Your task to perform on an android device: Add alienware area 51 to the cart on bestbuy.com, then select checkout. Image 0: 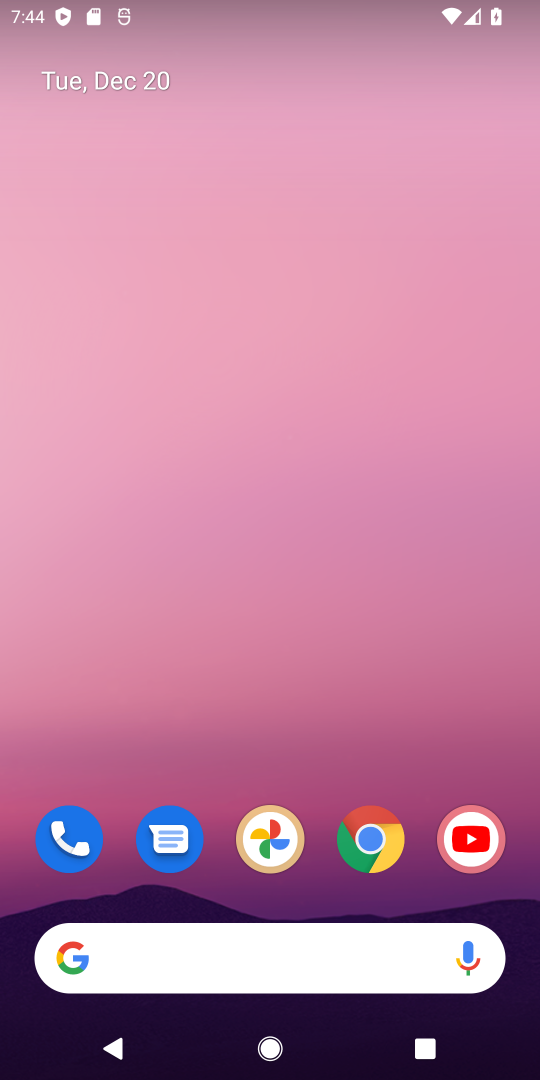
Step 0: press home button
Your task to perform on an android device: Add alienware area 51 to the cart on bestbuy.com, then select checkout. Image 1: 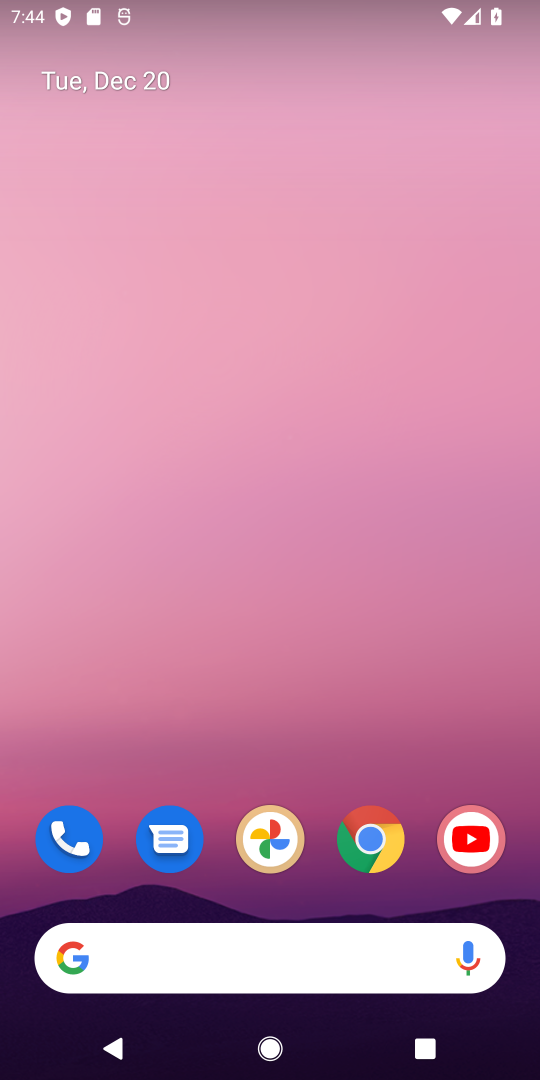
Step 1: drag from (257, 922) to (232, 1)
Your task to perform on an android device: Add alienware area 51 to the cart on bestbuy.com, then select checkout. Image 2: 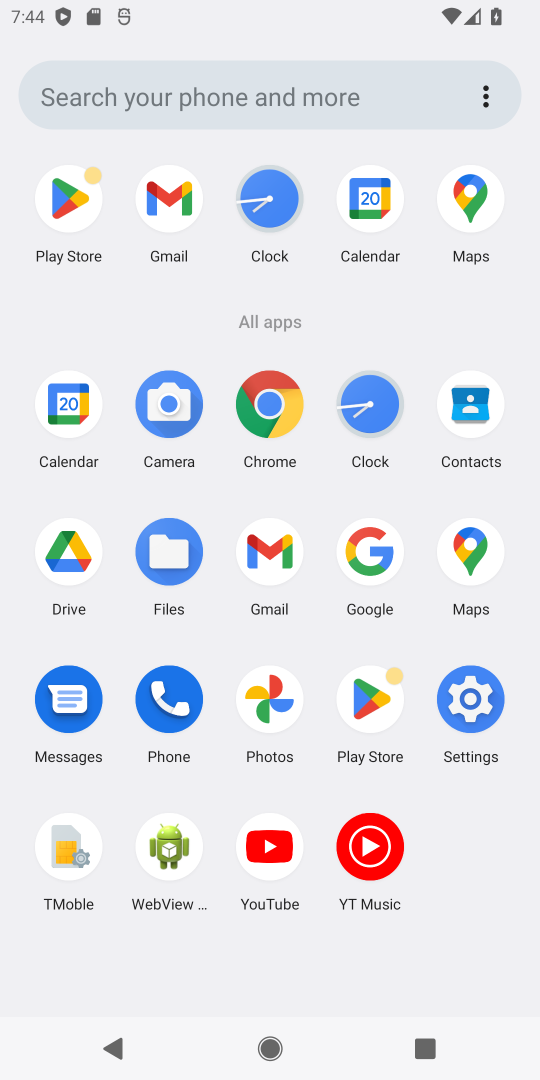
Step 2: click (361, 565)
Your task to perform on an android device: Add alienware area 51 to the cart on bestbuy.com, then select checkout. Image 3: 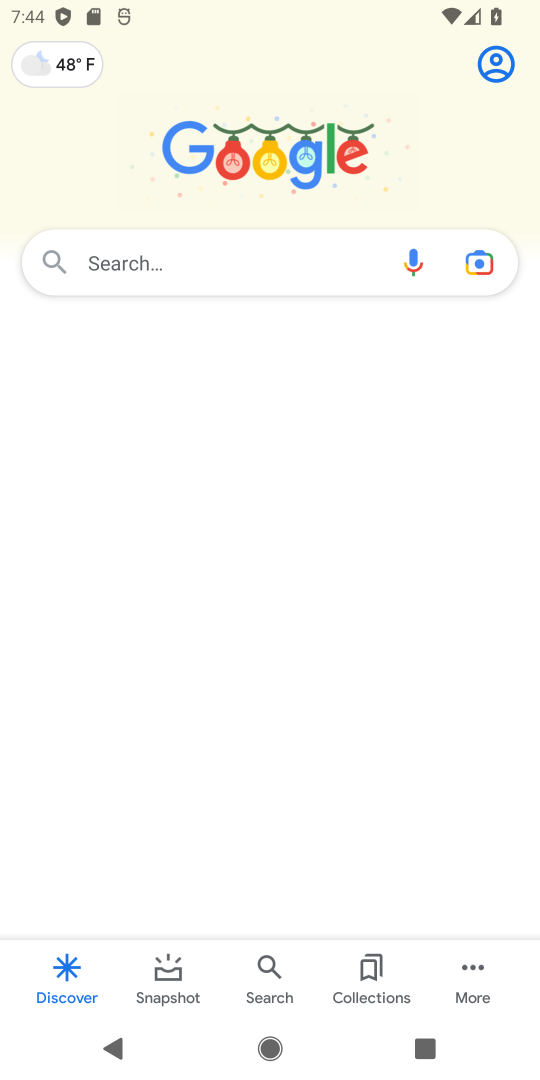
Step 3: click (171, 274)
Your task to perform on an android device: Add alienware area 51 to the cart on bestbuy.com, then select checkout. Image 4: 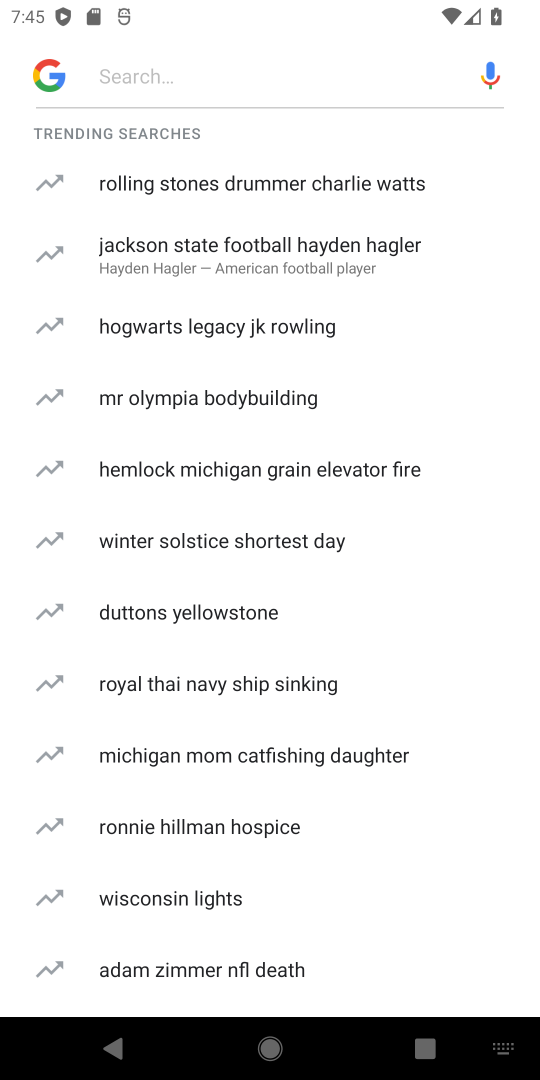
Step 4: type "bestbuy"
Your task to perform on an android device: Add alienware area 51 to the cart on bestbuy.com, then select checkout. Image 5: 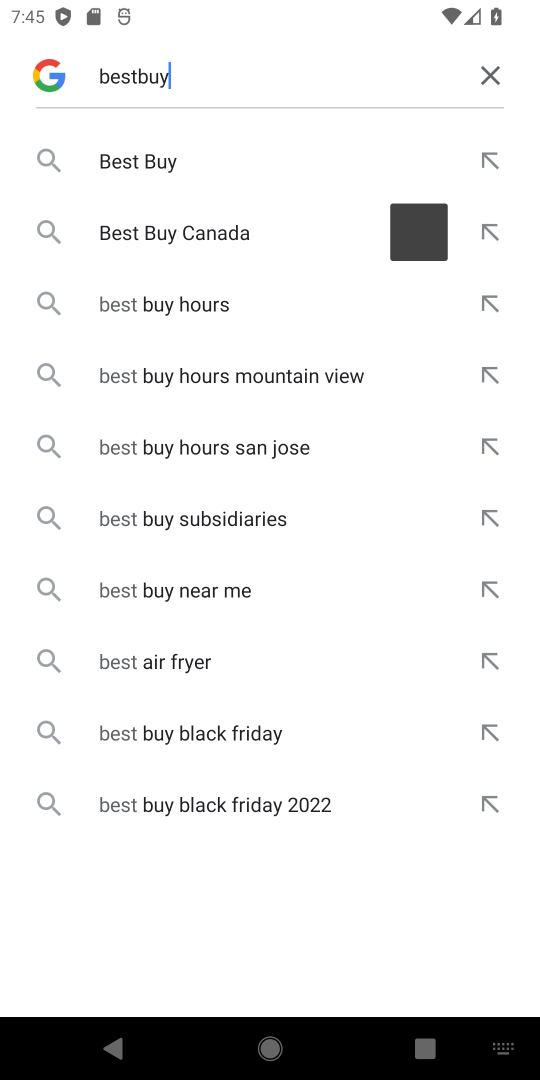
Step 5: type ""
Your task to perform on an android device: Add alienware area 51 to the cart on bestbuy.com, then select checkout. Image 6: 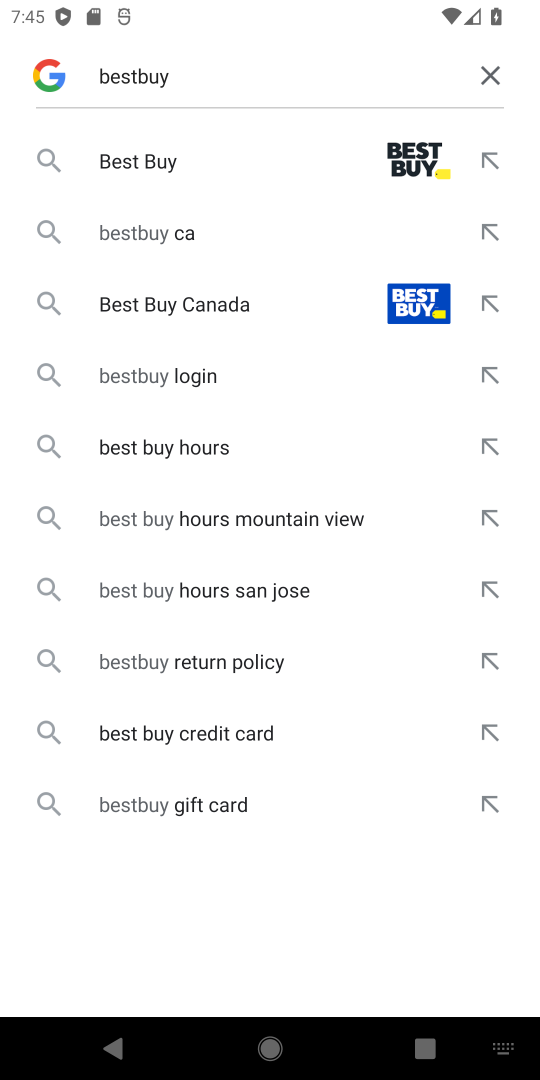
Step 6: click (234, 174)
Your task to perform on an android device: Add alienware area 51 to the cart on bestbuy.com, then select checkout. Image 7: 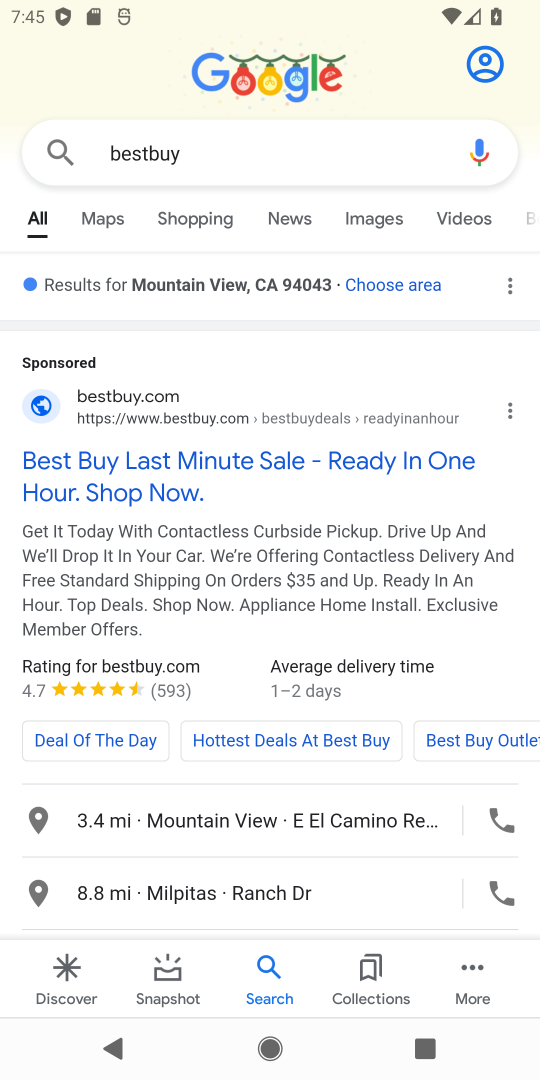
Step 7: click (75, 477)
Your task to perform on an android device: Add alienware area 51 to the cart on bestbuy.com, then select checkout. Image 8: 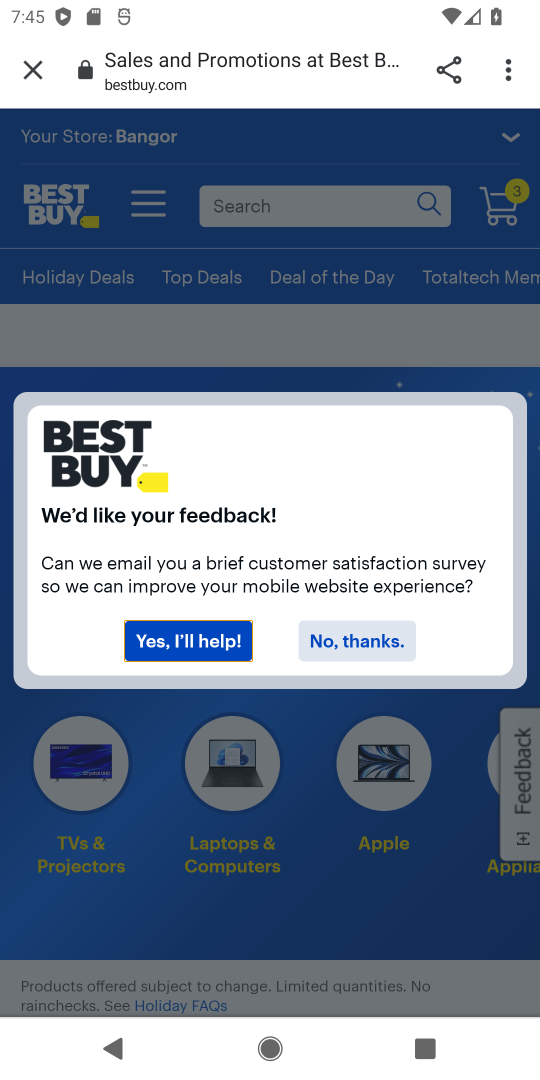
Step 8: click (388, 655)
Your task to perform on an android device: Add alienware area 51 to the cart on bestbuy.com, then select checkout. Image 9: 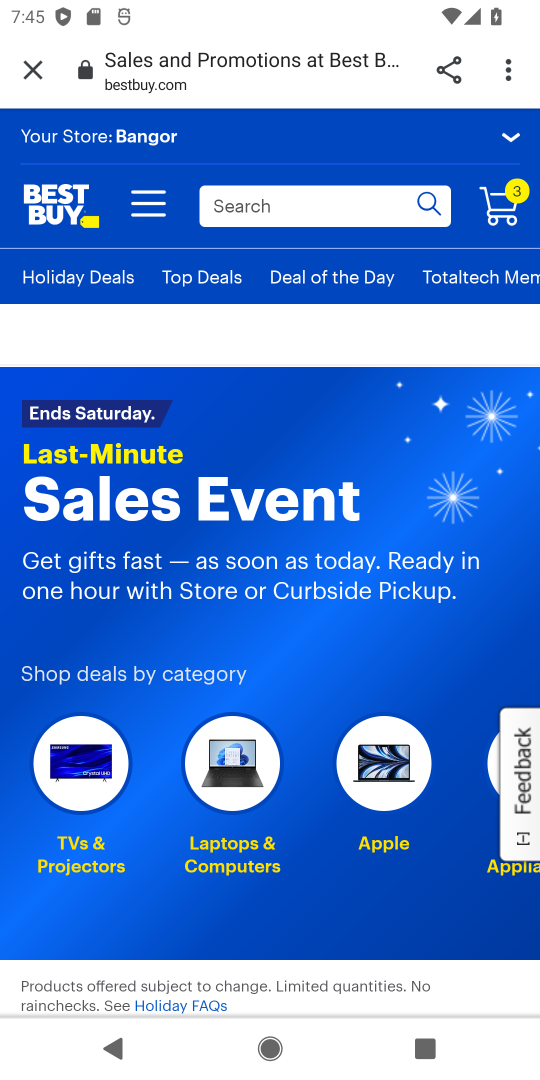
Step 9: click (279, 188)
Your task to perform on an android device: Add alienware area 51 to the cart on bestbuy.com, then select checkout. Image 10: 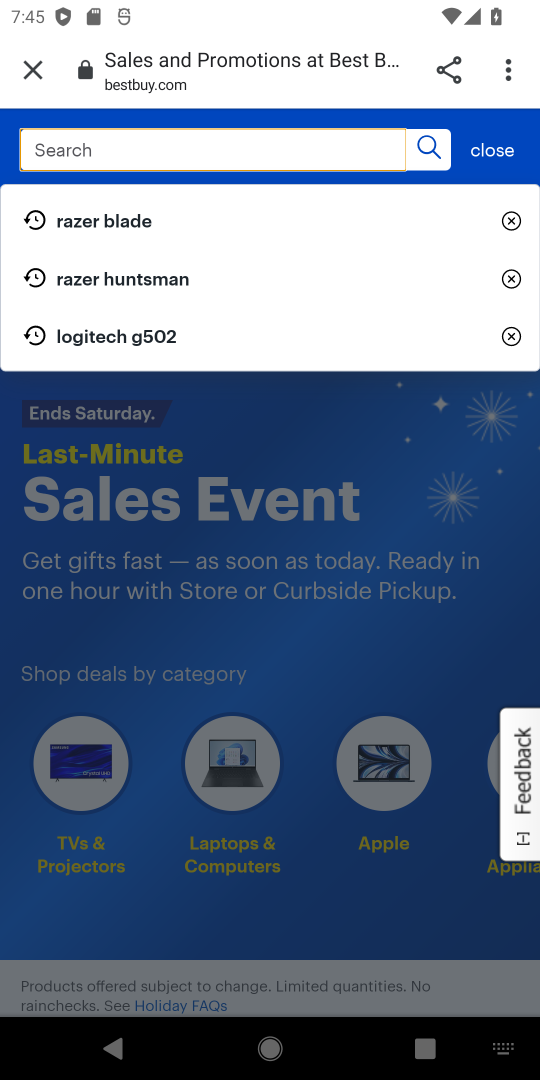
Step 10: type " alienware area 51 "
Your task to perform on an android device: Add alienware area 51 to the cart on bestbuy.com, then select checkout. Image 11: 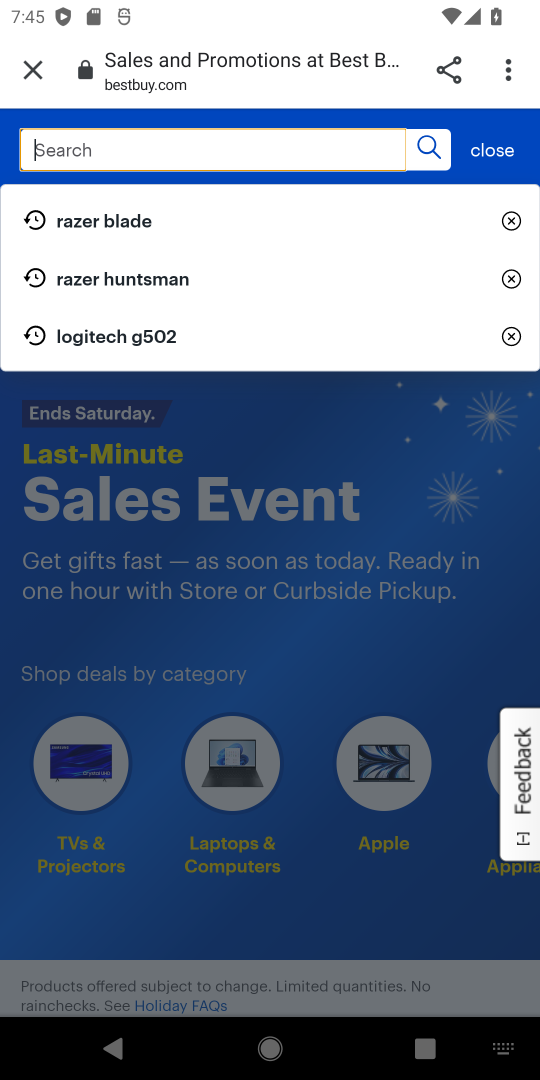
Step 11: type ""
Your task to perform on an android device: Add alienware area 51 to the cart on bestbuy.com, then select checkout. Image 12: 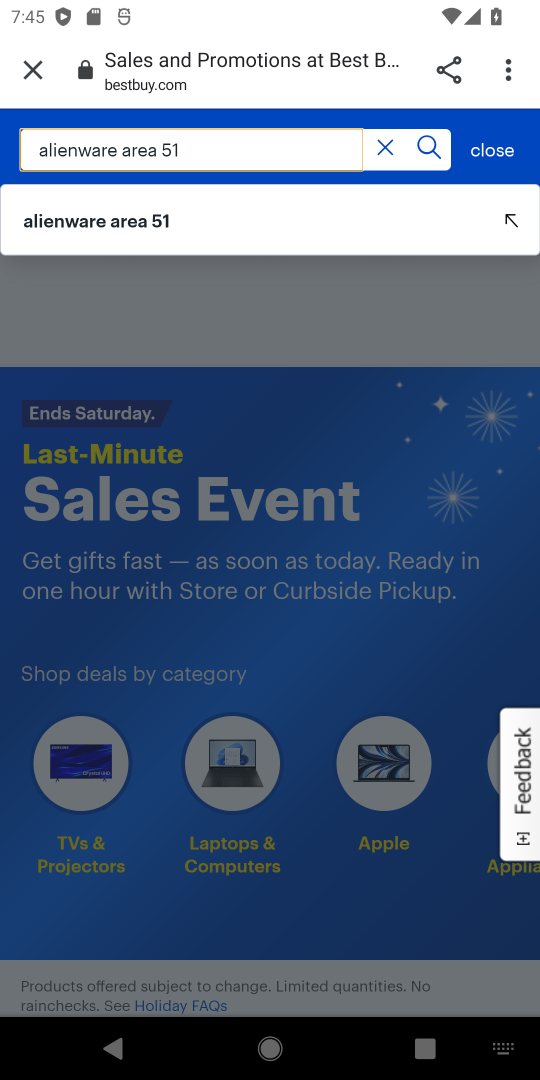
Step 12: click (424, 145)
Your task to perform on an android device: Add alienware area 51 to the cart on bestbuy.com, then select checkout. Image 13: 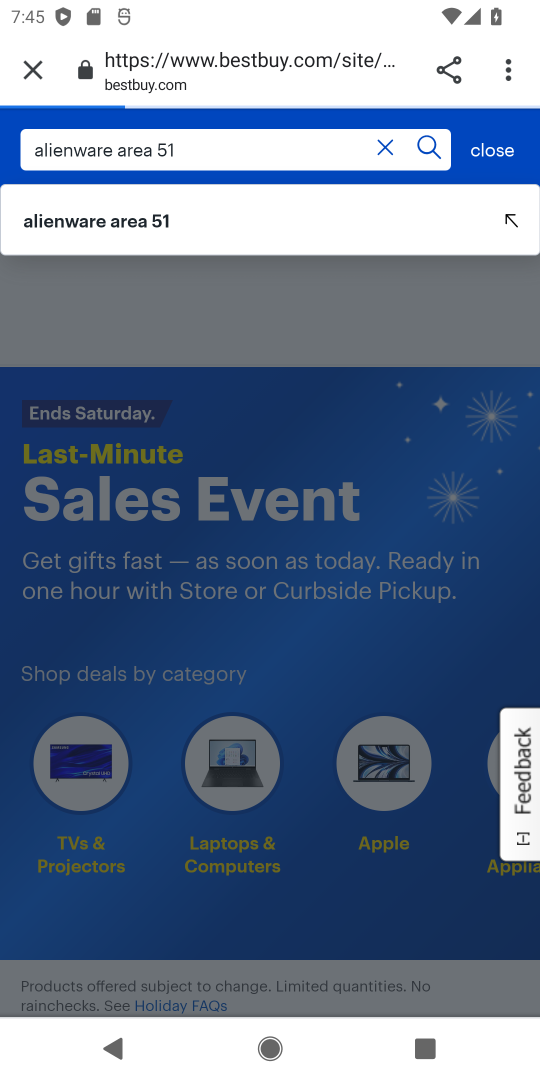
Step 13: click (113, 218)
Your task to perform on an android device: Add alienware area 51 to the cart on bestbuy.com, then select checkout. Image 14: 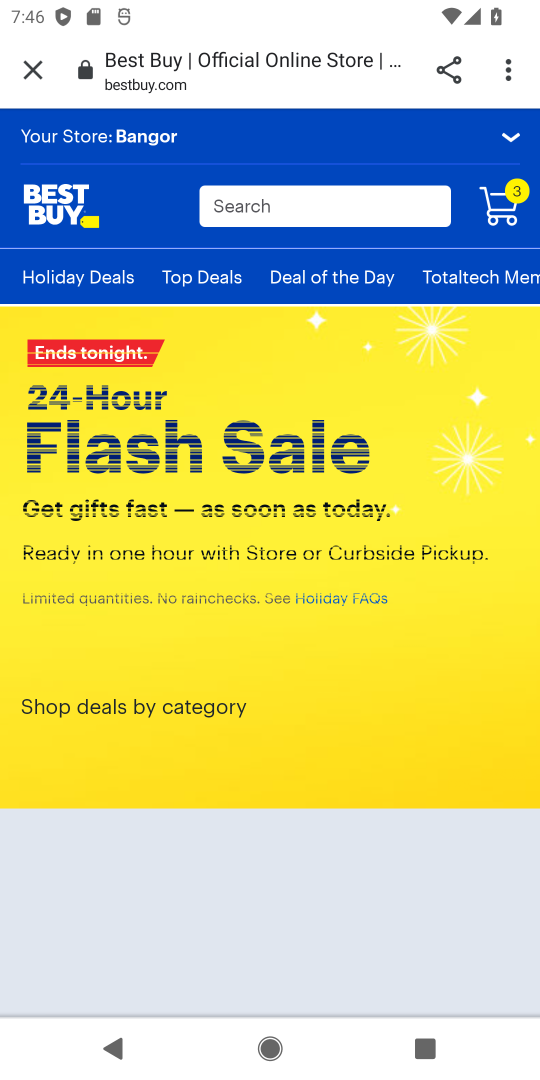
Step 14: drag from (320, 874) to (372, 0)
Your task to perform on an android device: Add alienware area 51 to the cart on bestbuy.com, then select checkout. Image 15: 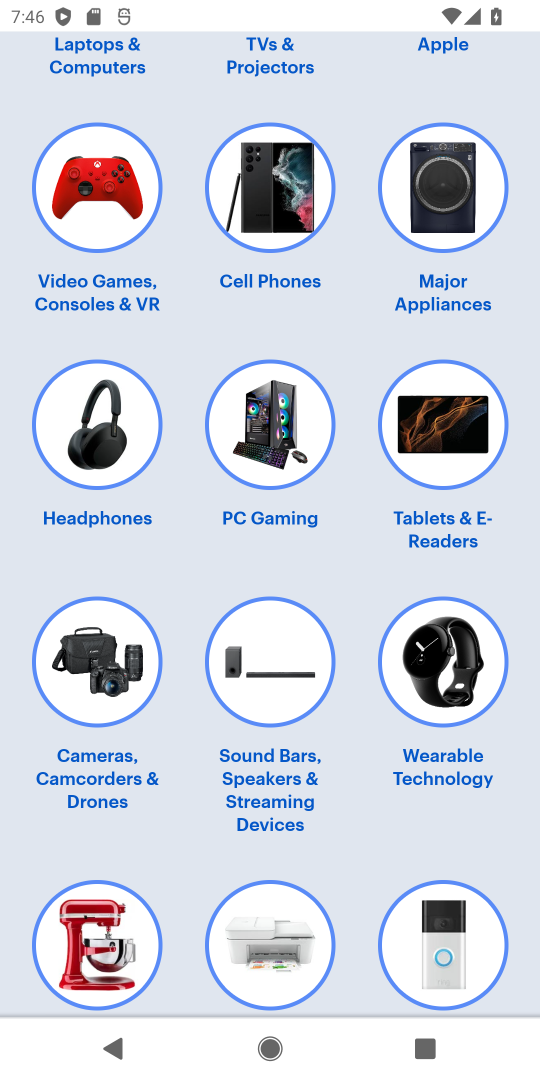
Step 15: drag from (277, 128) to (201, 1036)
Your task to perform on an android device: Add alienware area 51 to the cart on bestbuy.com, then select checkout. Image 16: 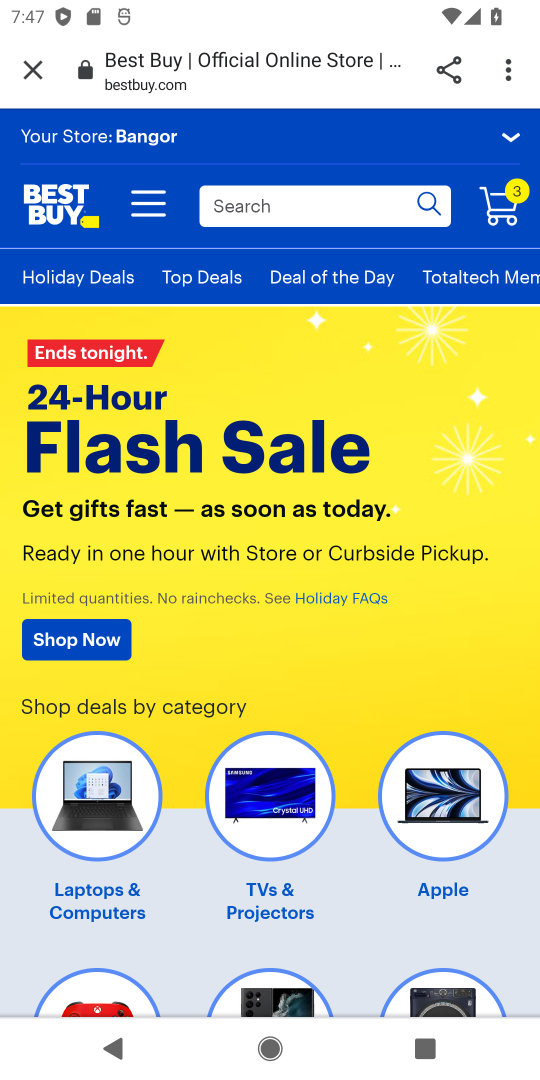
Step 16: click (282, 212)
Your task to perform on an android device: Add alienware area 51 to the cart on bestbuy.com, then select checkout. Image 17: 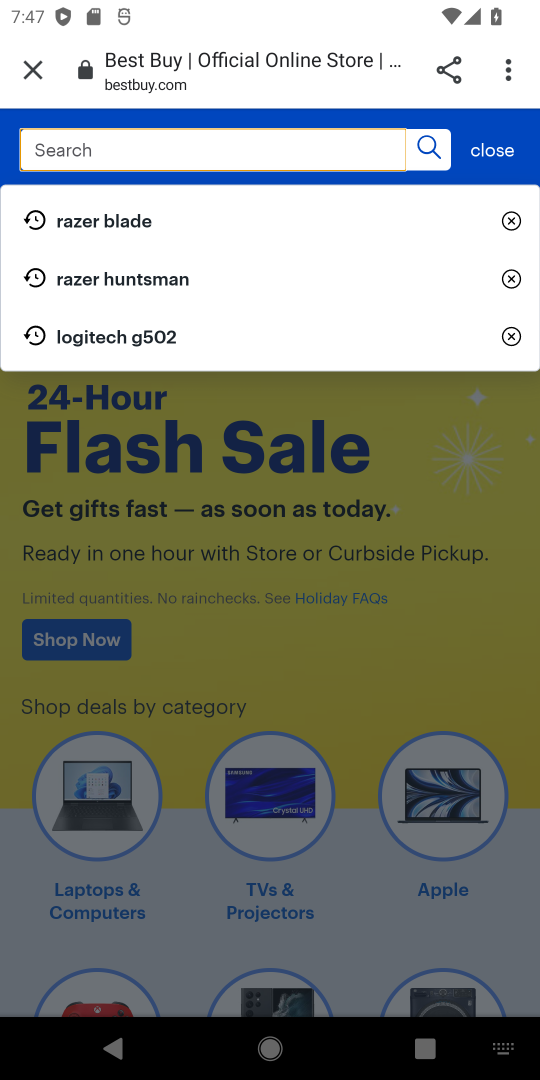
Step 17: type "alienware area 51 "
Your task to perform on an android device: Add alienware area 51 to the cart on bestbuy.com, then select checkout. Image 18: 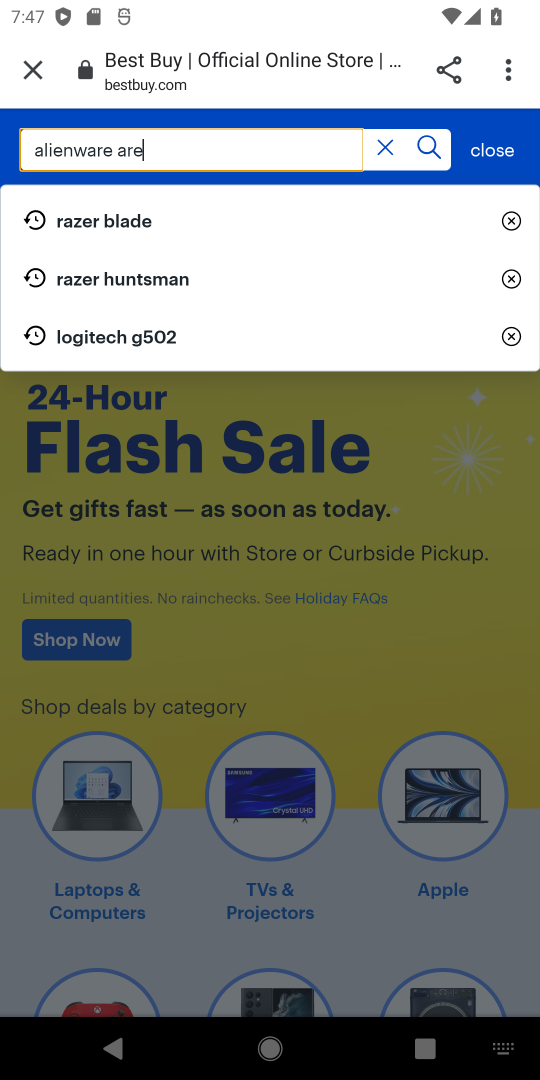
Step 18: type ""
Your task to perform on an android device: Add alienware area 51 to the cart on bestbuy.com, then select checkout. Image 19: 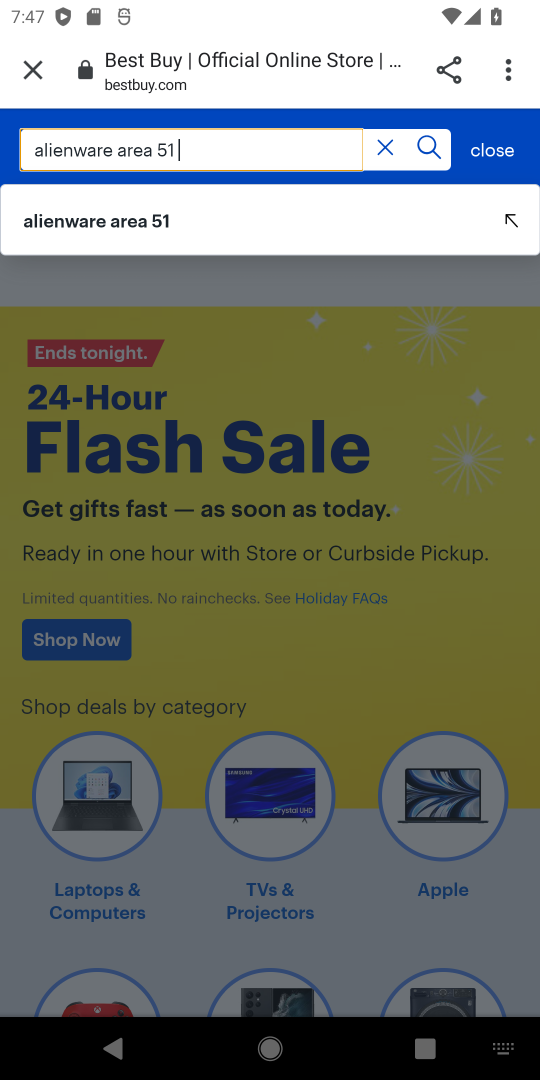
Step 19: click (437, 152)
Your task to perform on an android device: Add alienware area 51 to the cart on bestbuy.com, then select checkout. Image 20: 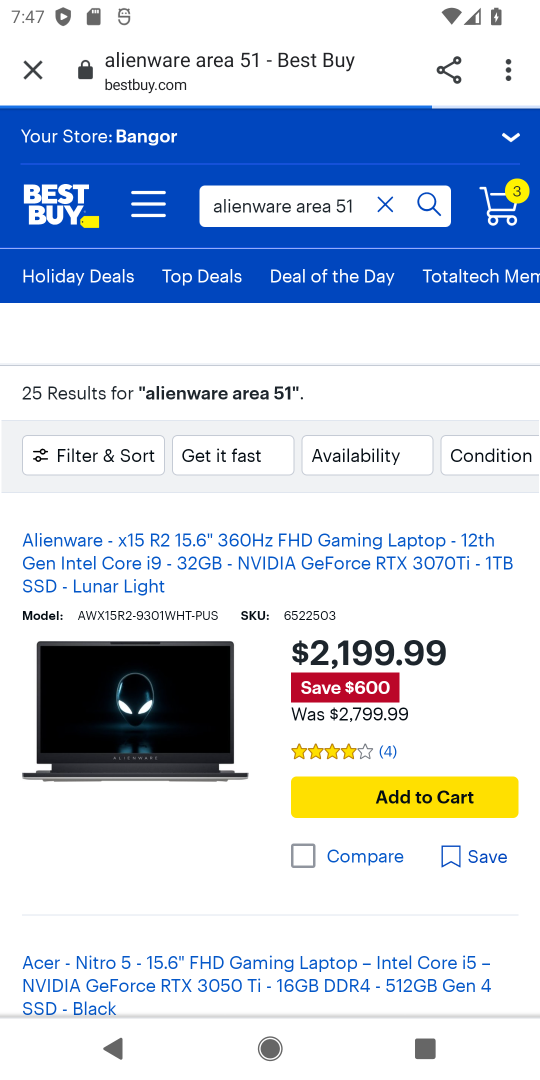
Step 20: drag from (303, 884) to (326, 692)
Your task to perform on an android device: Add alienware area 51 to the cart on bestbuy.com, then select checkout. Image 21: 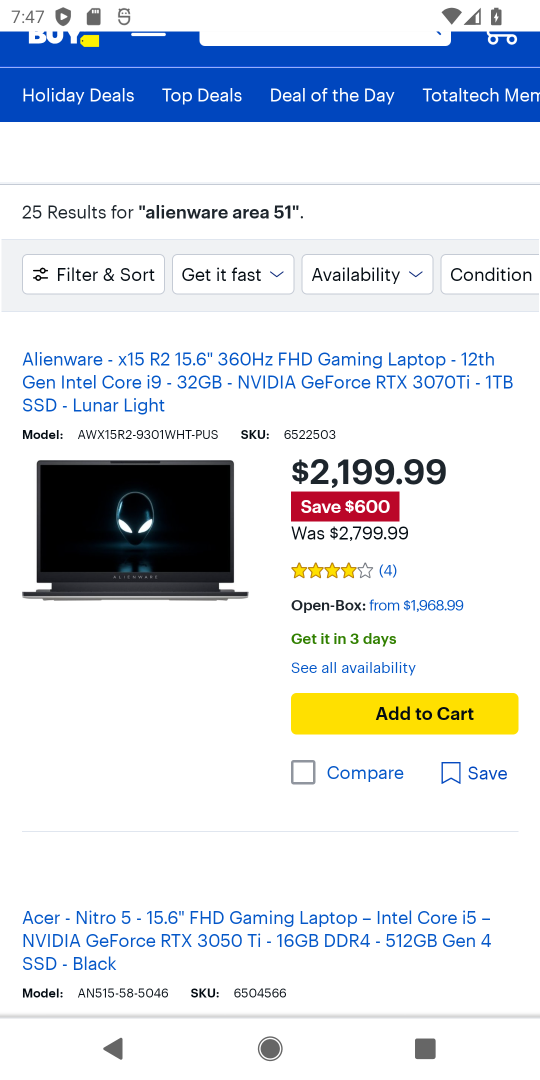
Step 21: click (371, 703)
Your task to perform on an android device: Add alienware area 51 to the cart on bestbuy.com, then select checkout. Image 22: 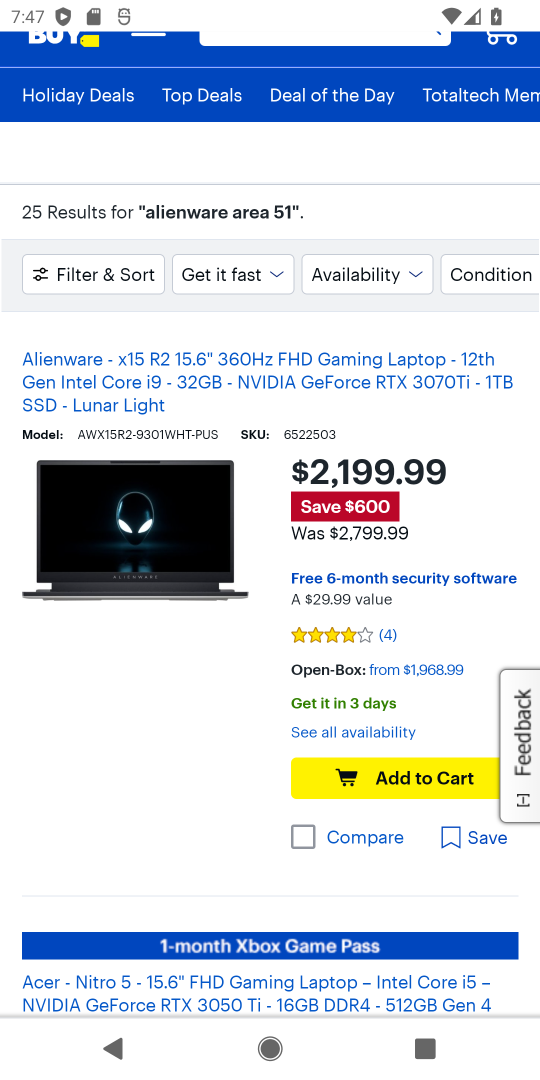
Step 22: click (394, 780)
Your task to perform on an android device: Add alienware area 51 to the cart on bestbuy.com, then select checkout. Image 23: 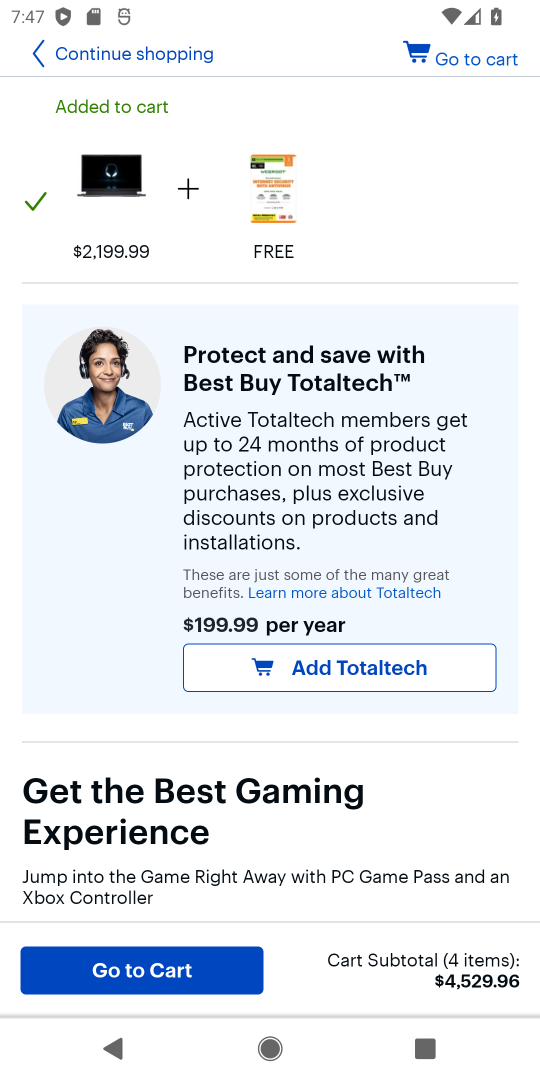
Step 23: click (111, 995)
Your task to perform on an android device: Add alienware area 51 to the cart on bestbuy.com, then select checkout. Image 24: 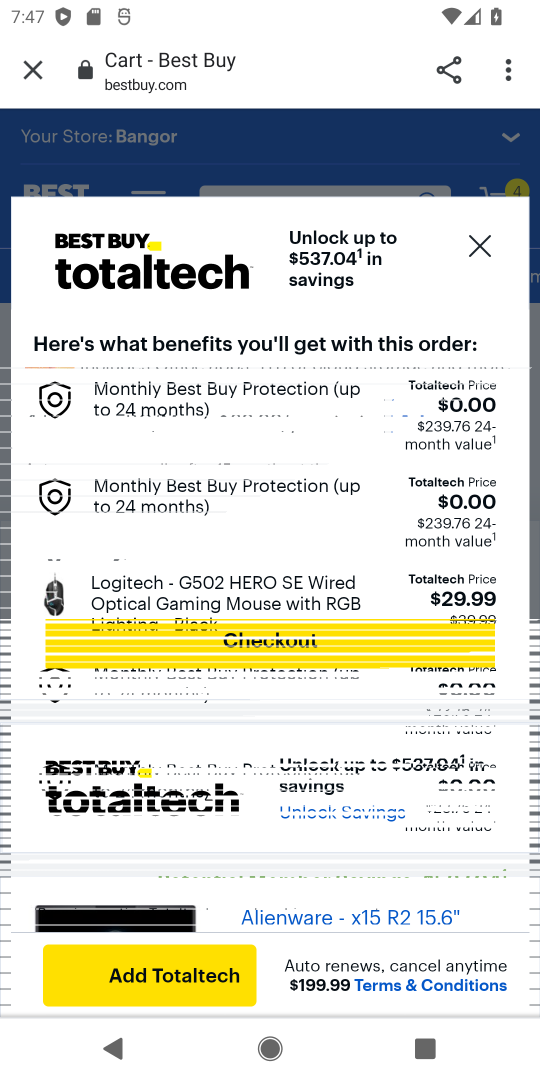
Step 24: click (469, 245)
Your task to perform on an android device: Add alienware area 51 to the cart on bestbuy.com, then select checkout. Image 25: 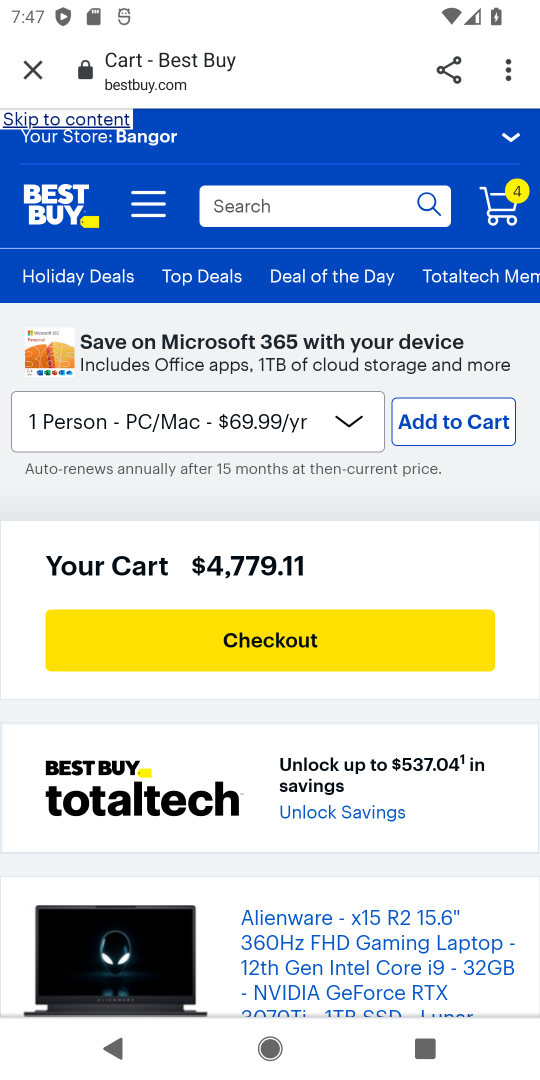
Step 25: click (272, 655)
Your task to perform on an android device: Add alienware area 51 to the cart on bestbuy.com, then select checkout. Image 26: 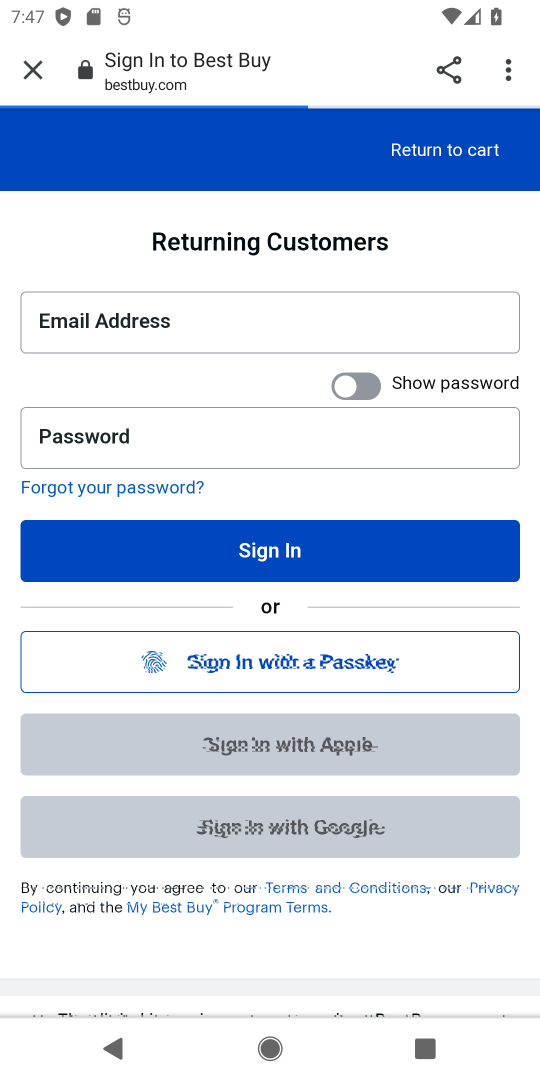
Step 26: task complete